Your task to perform on an android device: Go to Yahoo.com Image 0: 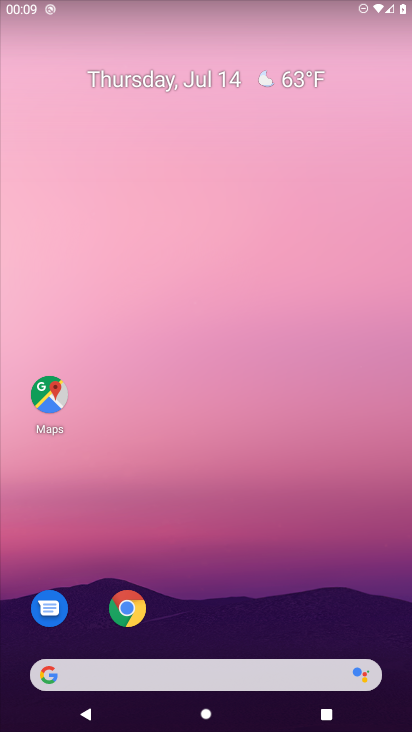
Step 0: press home button
Your task to perform on an android device: Go to Yahoo.com Image 1: 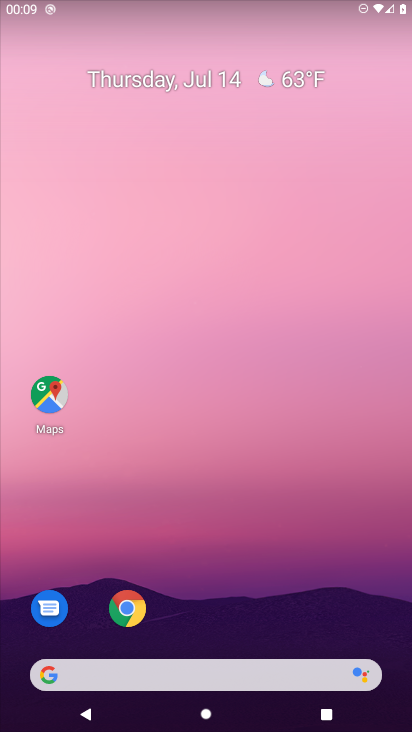
Step 1: click (49, 671)
Your task to perform on an android device: Go to Yahoo.com Image 2: 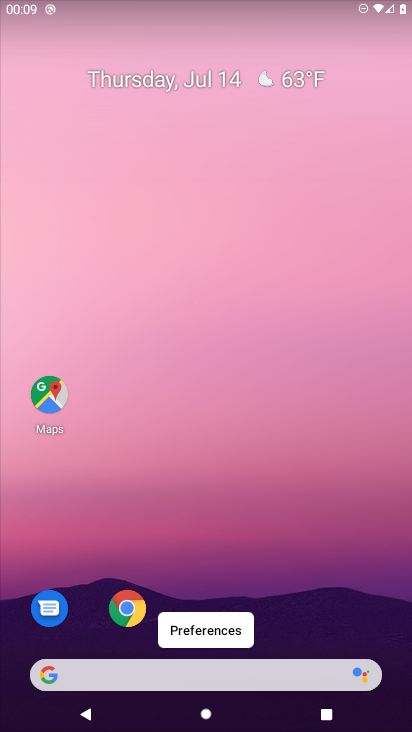
Step 2: click (49, 671)
Your task to perform on an android device: Go to Yahoo.com Image 3: 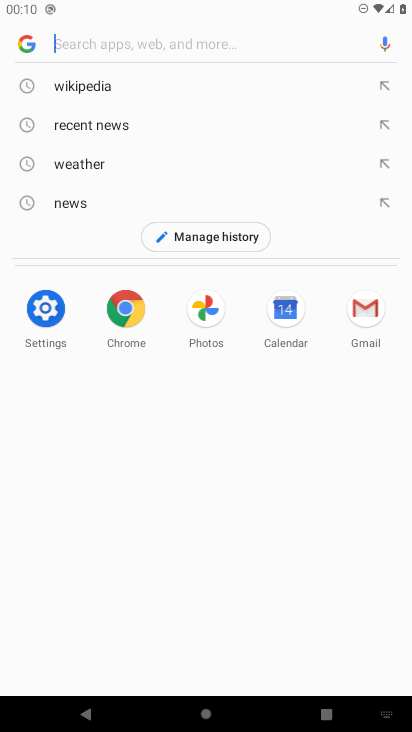
Step 3: type "Yahoo.com"
Your task to perform on an android device: Go to Yahoo.com Image 4: 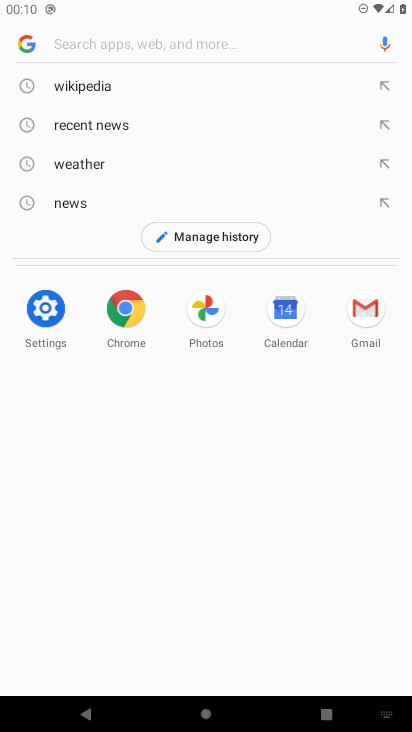
Step 4: click (187, 43)
Your task to perform on an android device: Go to Yahoo.com Image 5: 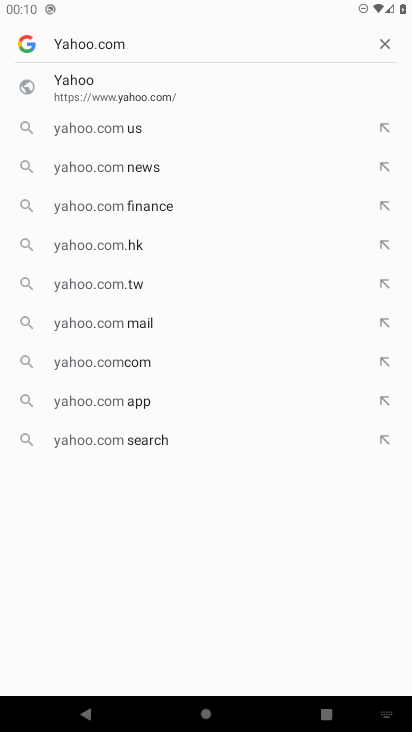
Step 5: click (78, 91)
Your task to perform on an android device: Go to Yahoo.com Image 6: 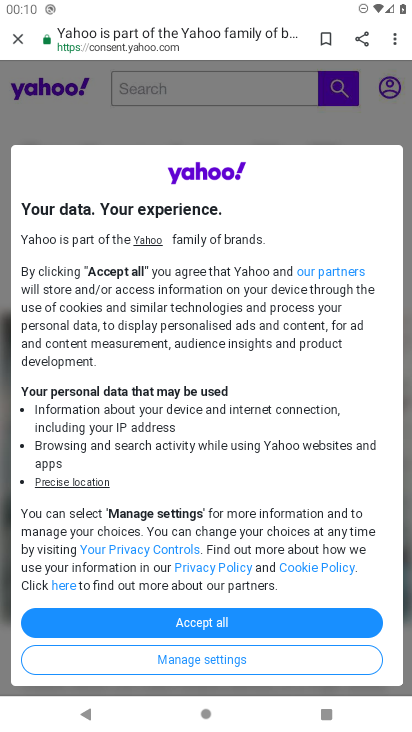
Step 6: click (127, 624)
Your task to perform on an android device: Go to Yahoo.com Image 7: 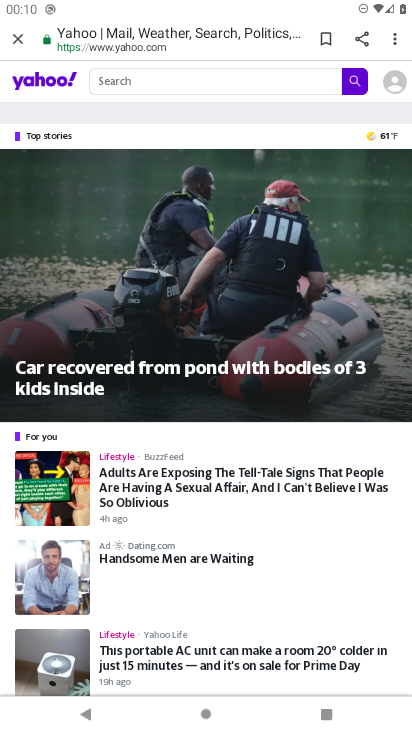
Step 7: task complete